Your task to perform on an android device: Open Android settings Image 0: 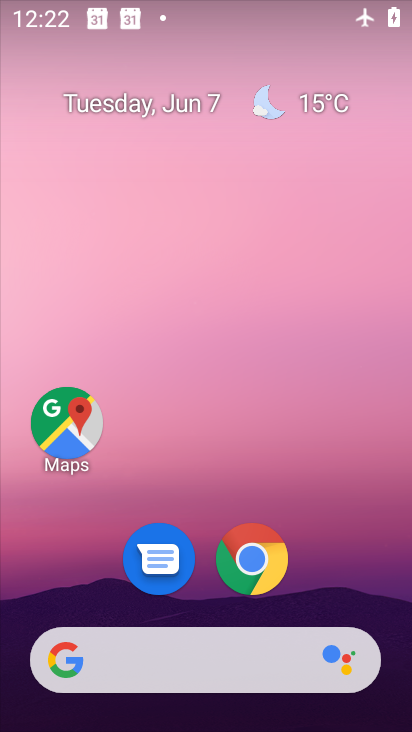
Step 0: drag from (371, 603) to (332, 76)
Your task to perform on an android device: Open Android settings Image 1: 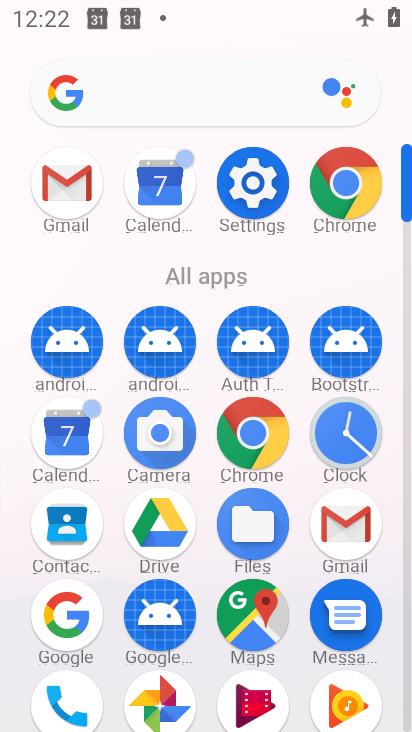
Step 1: click (407, 697)
Your task to perform on an android device: Open Android settings Image 2: 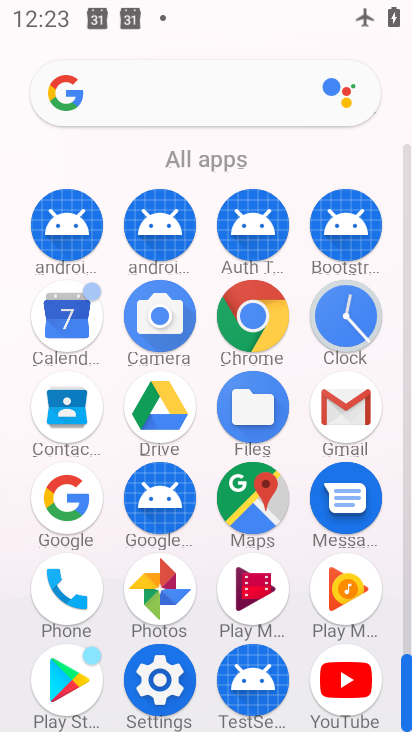
Step 2: click (160, 685)
Your task to perform on an android device: Open Android settings Image 3: 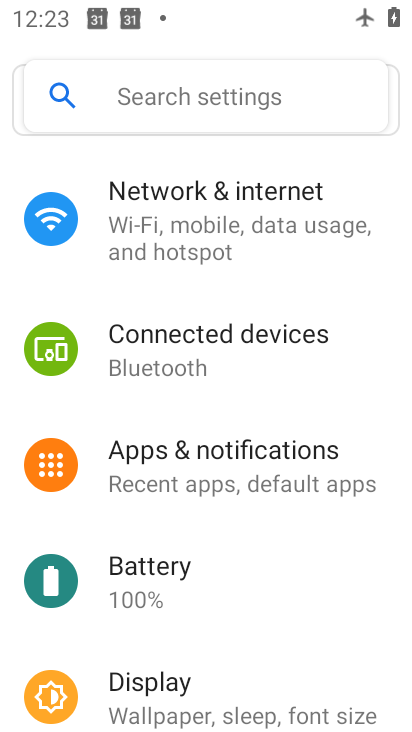
Step 3: drag from (348, 678) to (330, 248)
Your task to perform on an android device: Open Android settings Image 4: 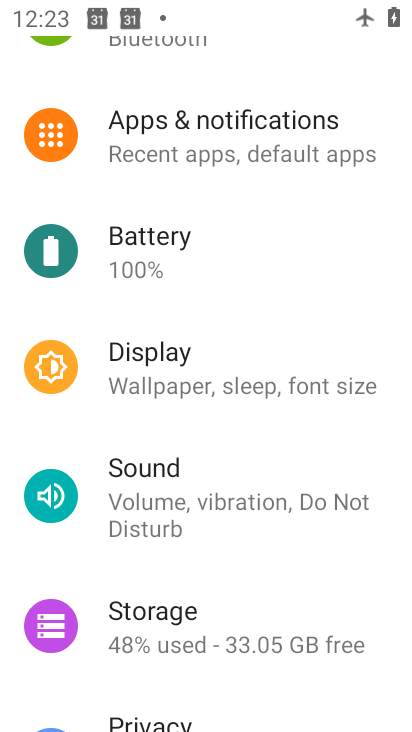
Step 4: drag from (377, 640) to (341, 203)
Your task to perform on an android device: Open Android settings Image 5: 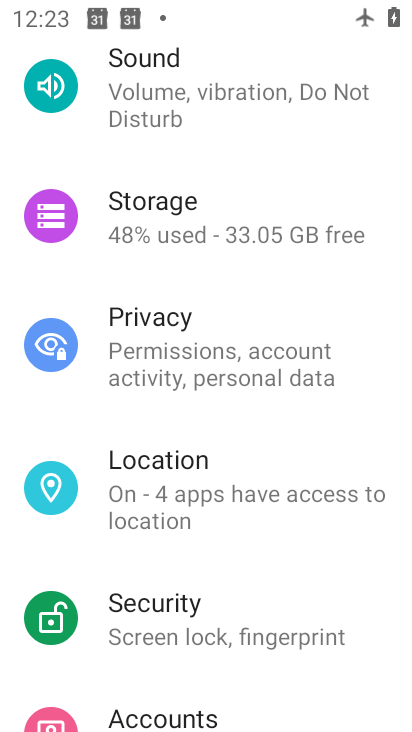
Step 5: drag from (364, 644) to (336, 224)
Your task to perform on an android device: Open Android settings Image 6: 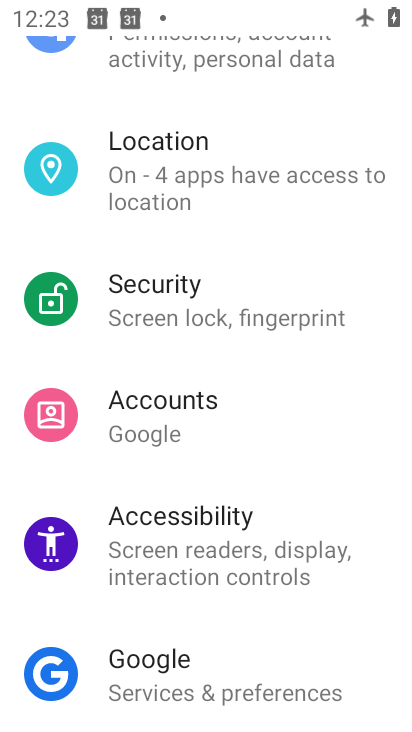
Step 6: drag from (375, 681) to (324, 128)
Your task to perform on an android device: Open Android settings Image 7: 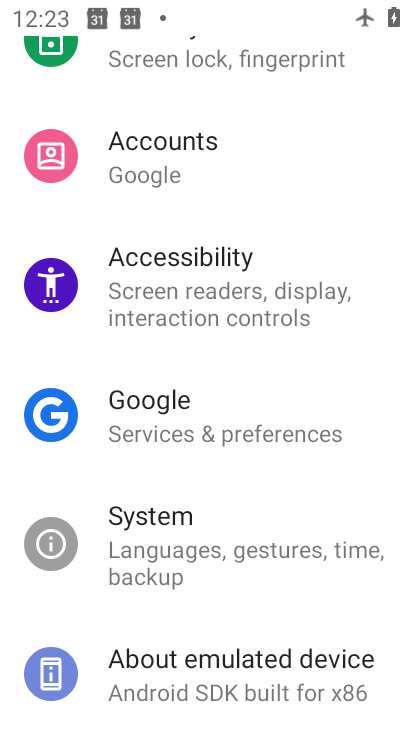
Step 7: click (209, 661)
Your task to perform on an android device: Open Android settings Image 8: 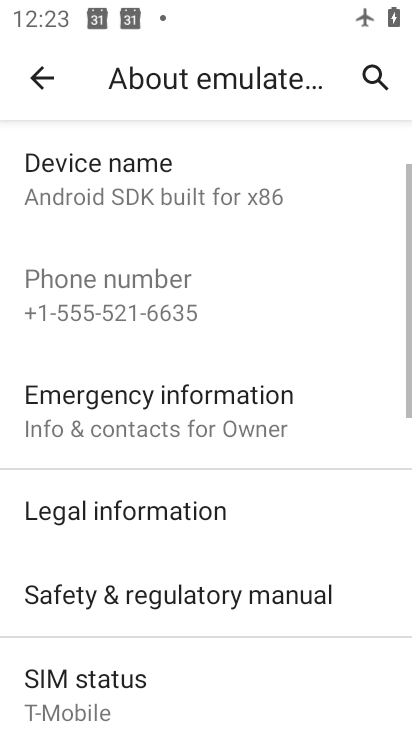
Step 8: task complete